Your task to perform on an android device: Go to internet settings Image 0: 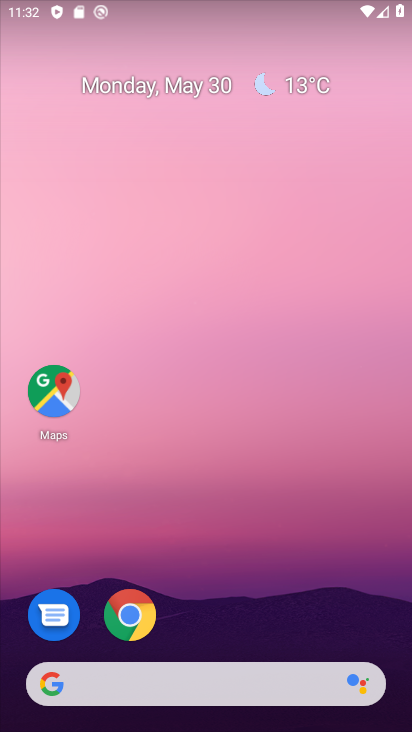
Step 0: drag from (160, 645) to (285, 78)
Your task to perform on an android device: Go to internet settings Image 1: 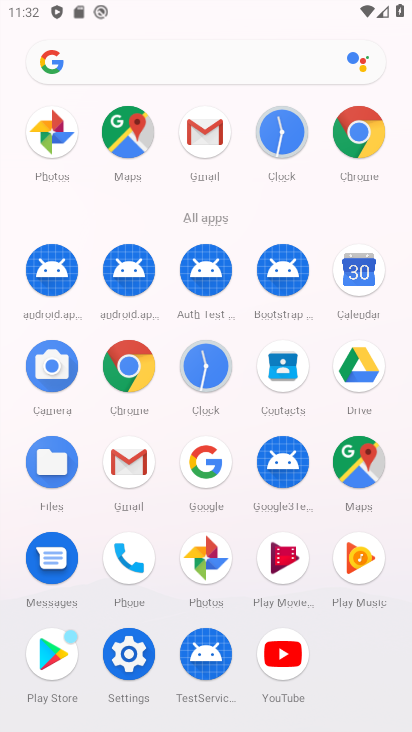
Step 1: click (130, 653)
Your task to perform on an android device: Go to internet settings Image 2: 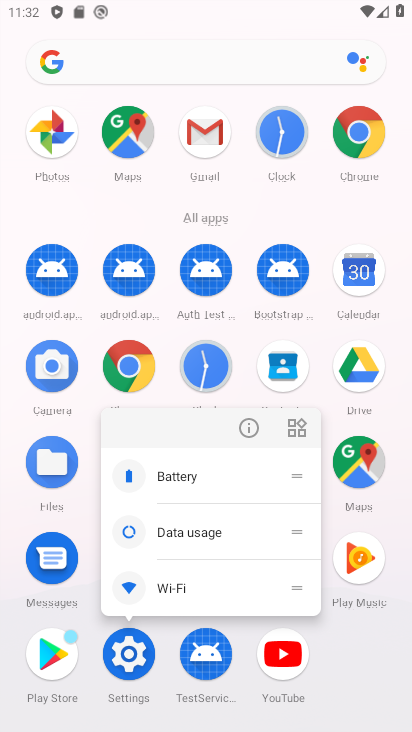
Step 2: click (130, 654)
Your task to perform on an android device: Go to internet settings Image 3: 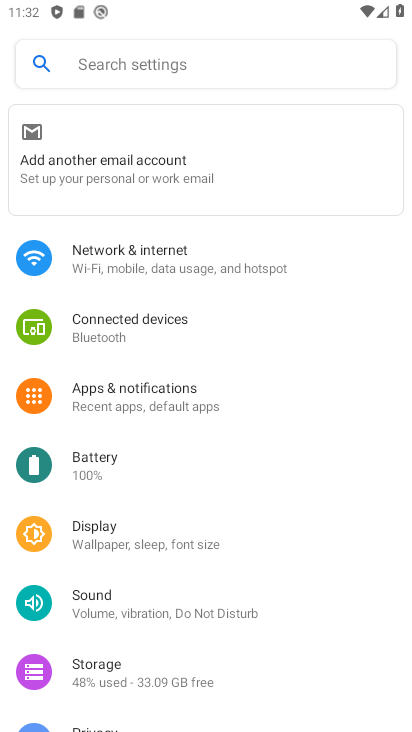
Step 3: click (194, 262)
Your task to perform on an android device: Go to internet settings Image 4: 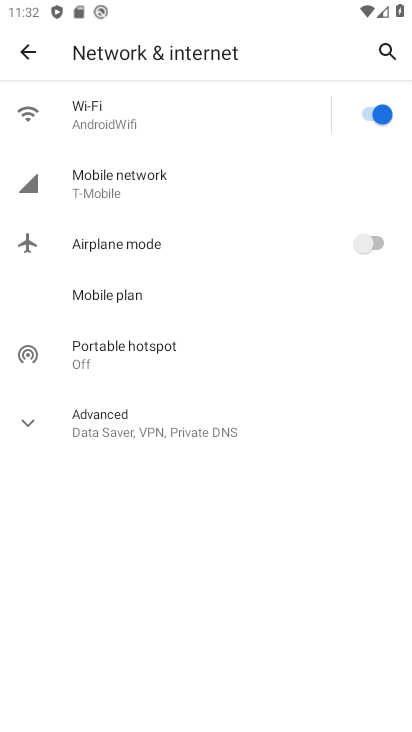
Step 4: click (206, 175)
Your task to perform on an android device: Go to internet settings Image 5: 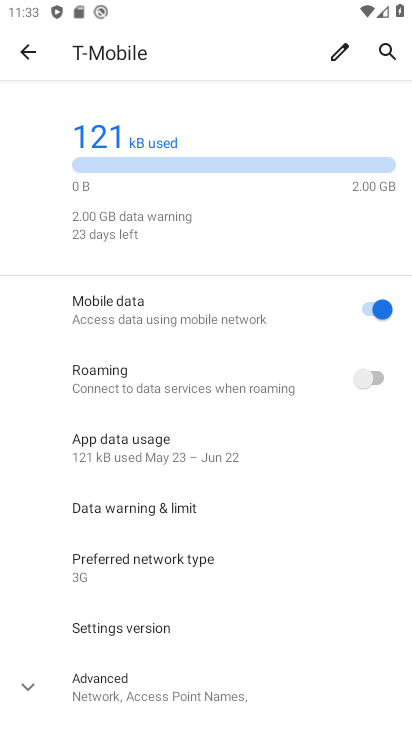
Step 5: task complete